Your task to perform on an android device: Open sound settings Image 0: 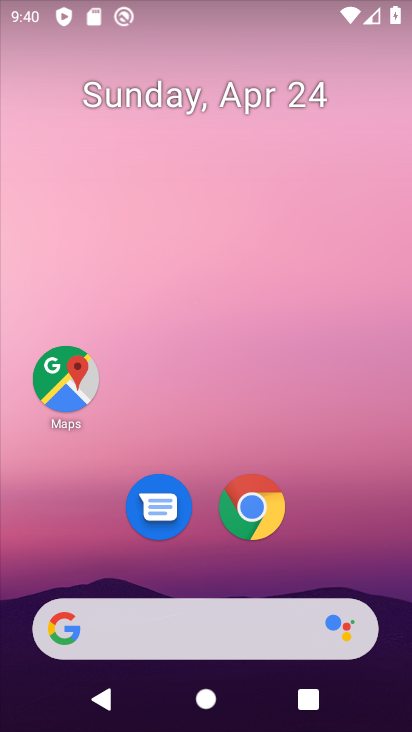
Step 0: drag from (131, 583) to (249, 118)
Your task to perform on an android device: Open sound settings Image 1: 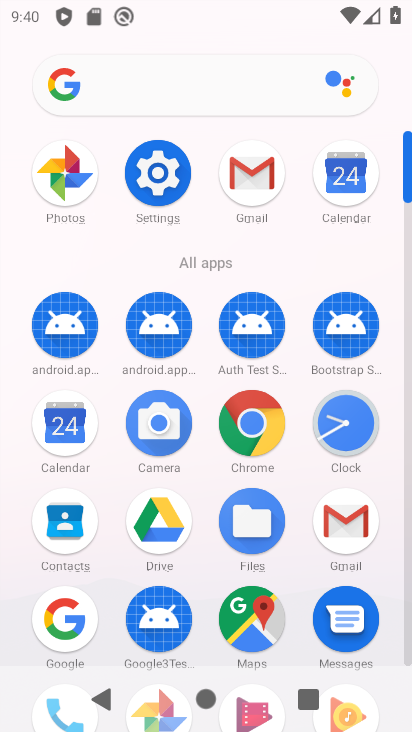
Step 1: click (146, 188)
Your task to perform on an android device: Open sound settings Image 2: 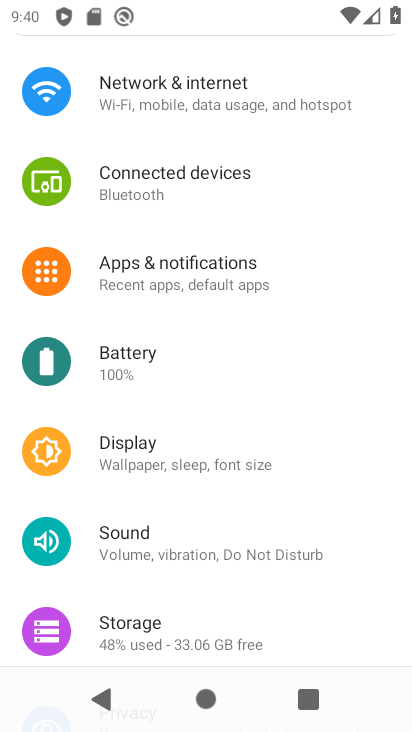
Step 2: drag from (134, 589) to (237, 219)
Your task to perform on an android device: Open sound settings Image 3: 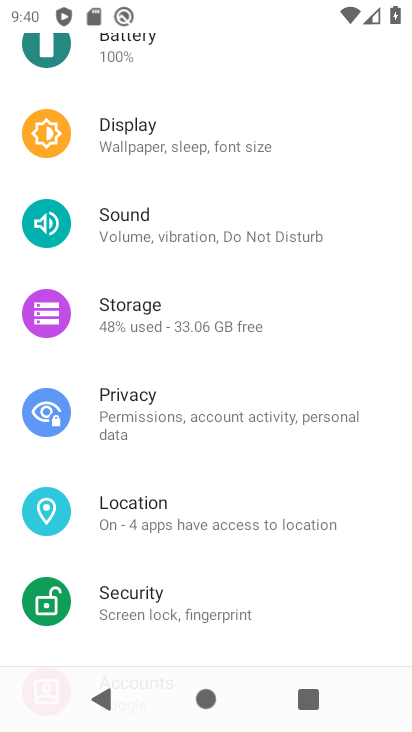
Step 3: drag from (211, 237) to (194, 570)
Your task to perform on an android device: Open sound settings Image 4: 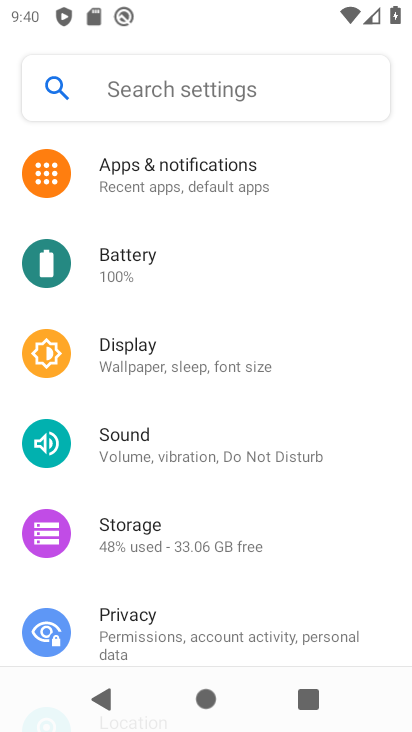
Step 4: click (151, 426)
Your task to perform on an android device: Open sound settings Image 5: 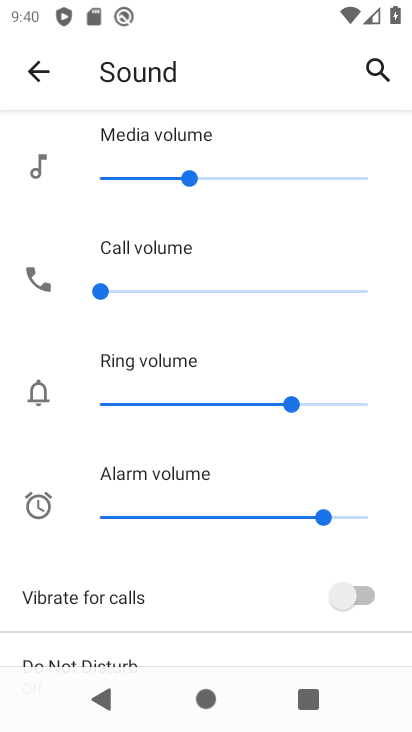
Step 5: task complete